Your task to perform on an android device: toggle pop-ups in chrome Image 0: 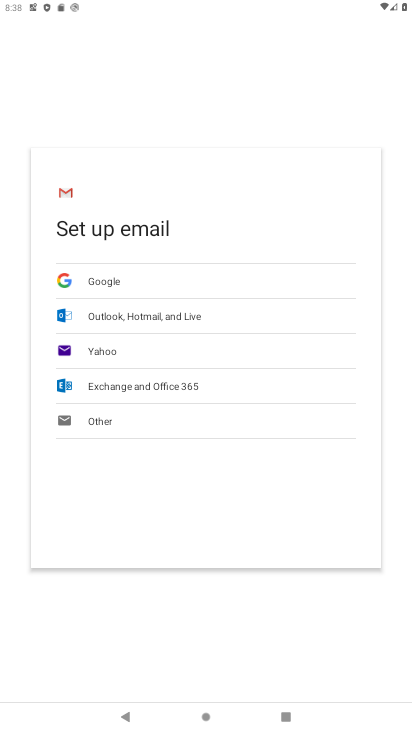
Step 0: press home button
Your task to perform on an android device: toggle pop-ups in chrome Image 1: 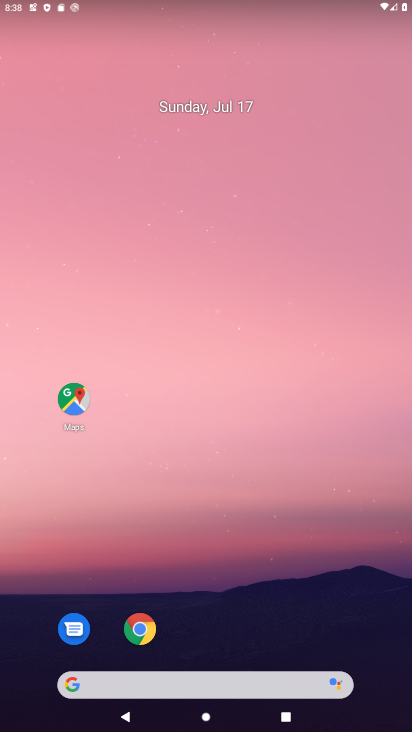
Step 1: click (136, 627)
Your task to perform on an android device: toggle pop-ups in chrome Image 2: 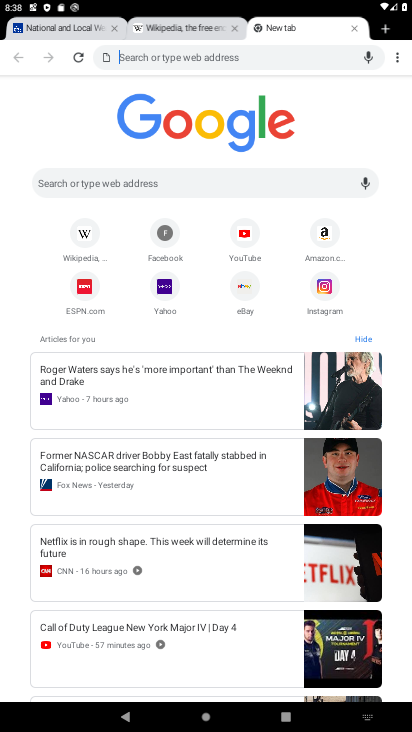
Step 2: click (400, 61)
Your task to perform on an android device: toggle pop-ups in chrome Image 3: 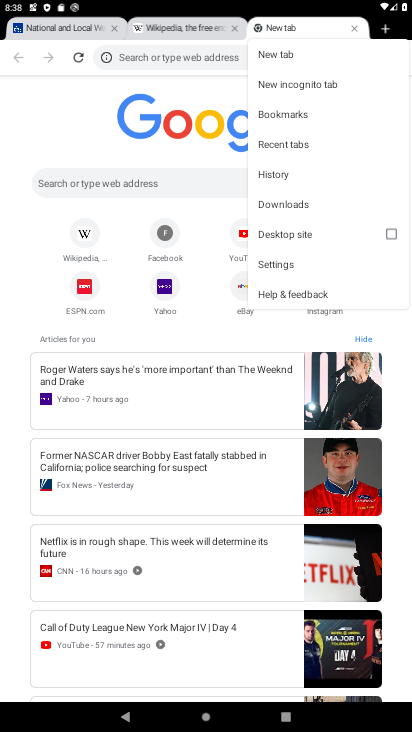
Step 3: click (288, 269)
Your task to perform on an android device: toggle pop-ups in chrome Image 4: 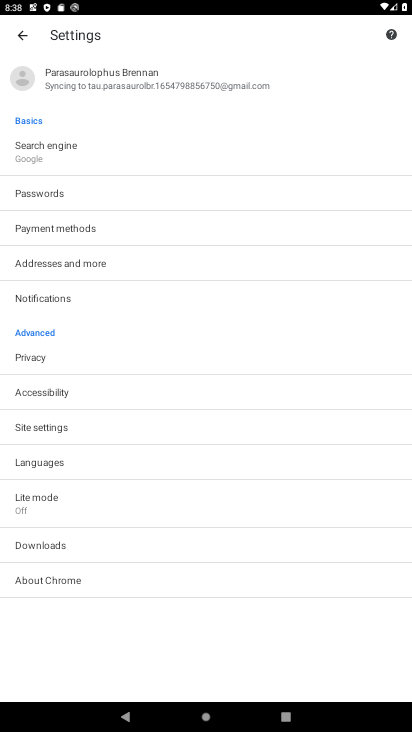
Step 4: click (47, 424)
Your task to perform on an android device: toggle pop-ups in chrome Image 5: 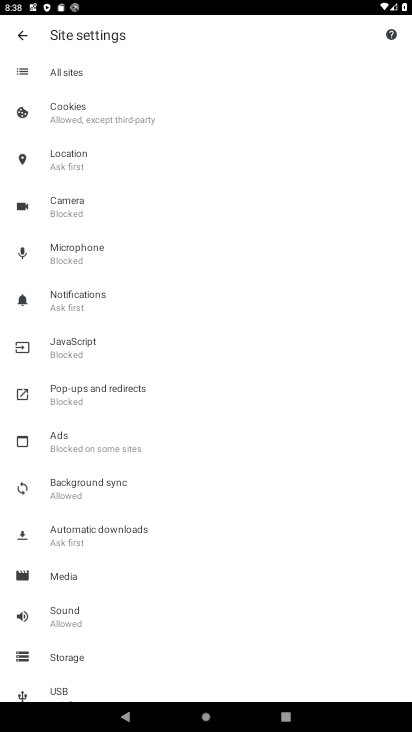
Step 5: click (73, 398)
Your task to perform on an android device: toggle pop-ups in chrome Image 6: 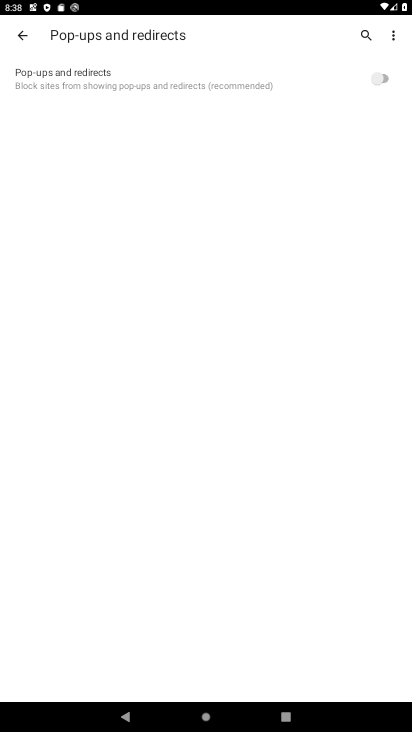
Step 6: click (385, 78)
Your task to perform on an android device: toggle pop-ups in chrome Image 7: 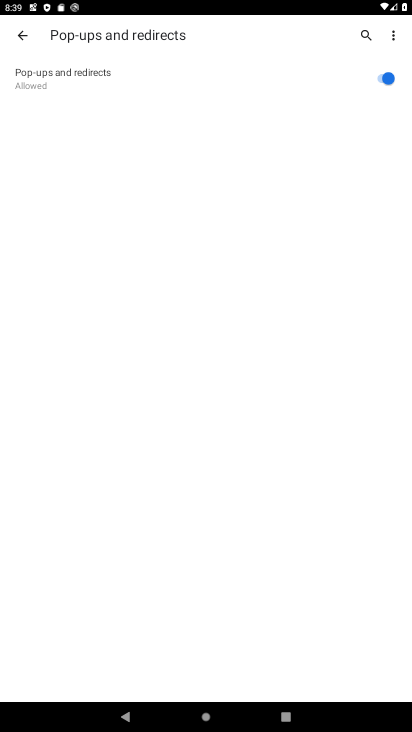
Step 7: task complete